Your task to perform on an android device: Open Chrome and go to settings Image 0: 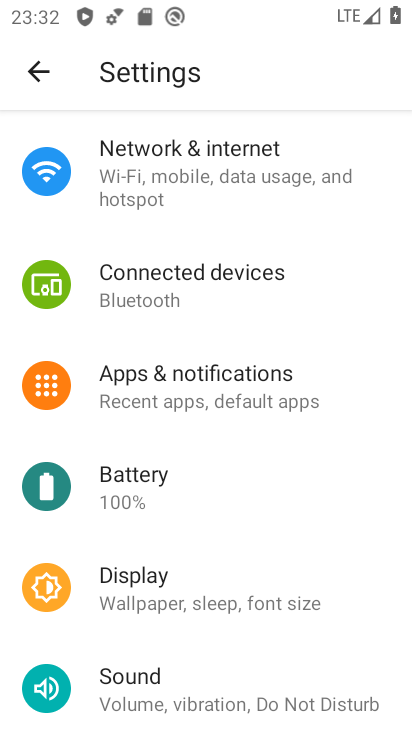
Step 0: press home button
Your task to perform on an android device: Open Chrome and go to settings Image 1: 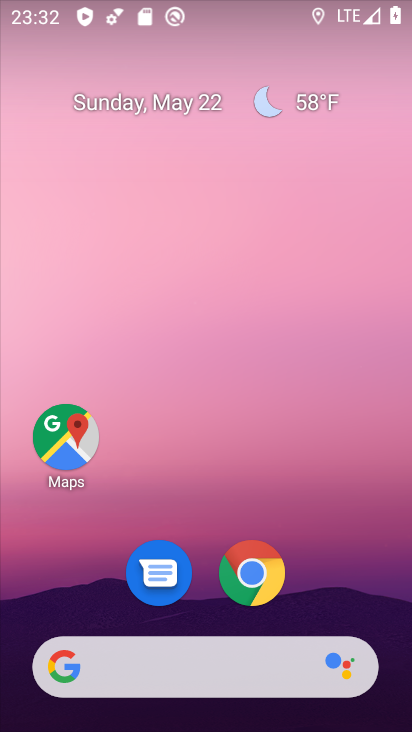
Step 1: click (266, 576)
Your task to perform on an android device: Open Chrome and go to settings Image 2: 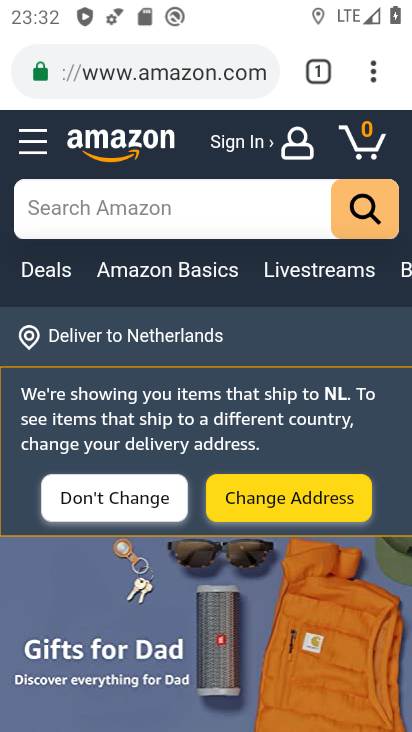
Step 2: click (368, 65)
Your task to perform on an android device: Open Chrome and go to settings Image 3: 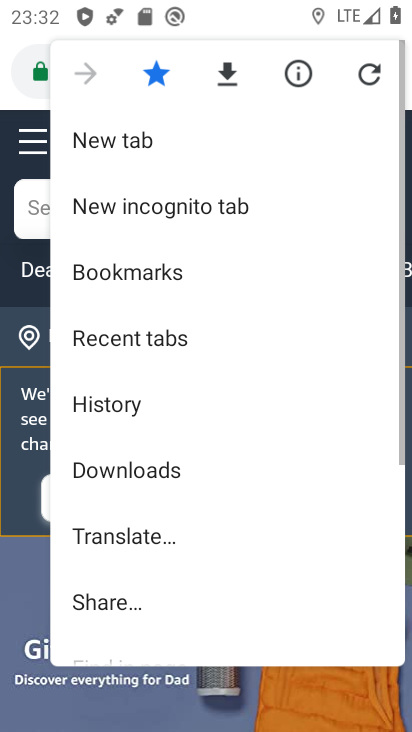
Step 3: drag from (188, 632) to (254, 182)
Your task to perform on an android device: Open Chrome and go to settings Image 4: 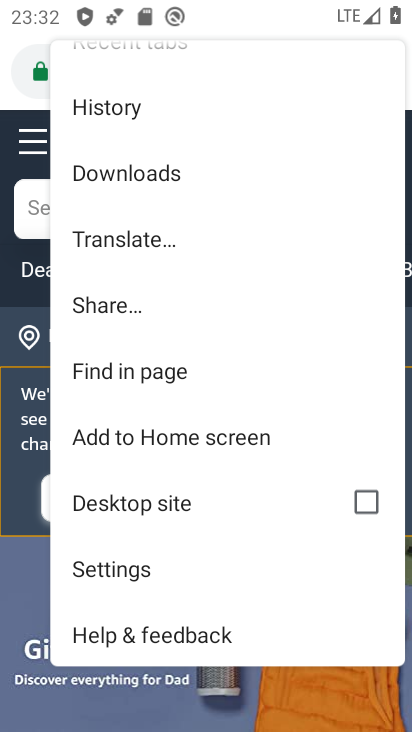
Step 4: click (136, 577)
Your task to perform on an android device: Open Chrome and go to settings Image 5: 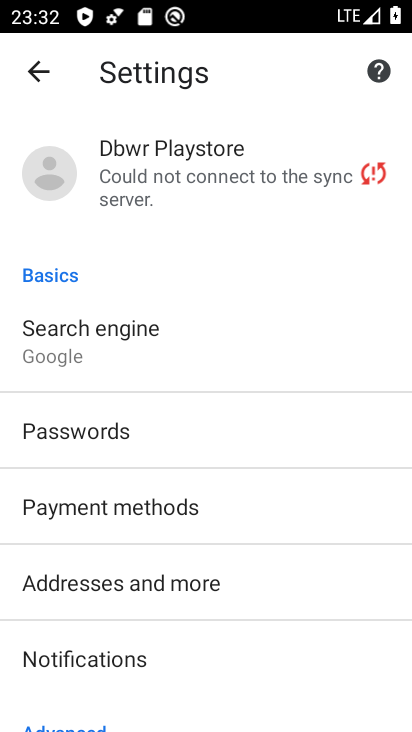
Step 5: task complete